Your task to perform on an android device: snooze an email in the gmail app Image 0: 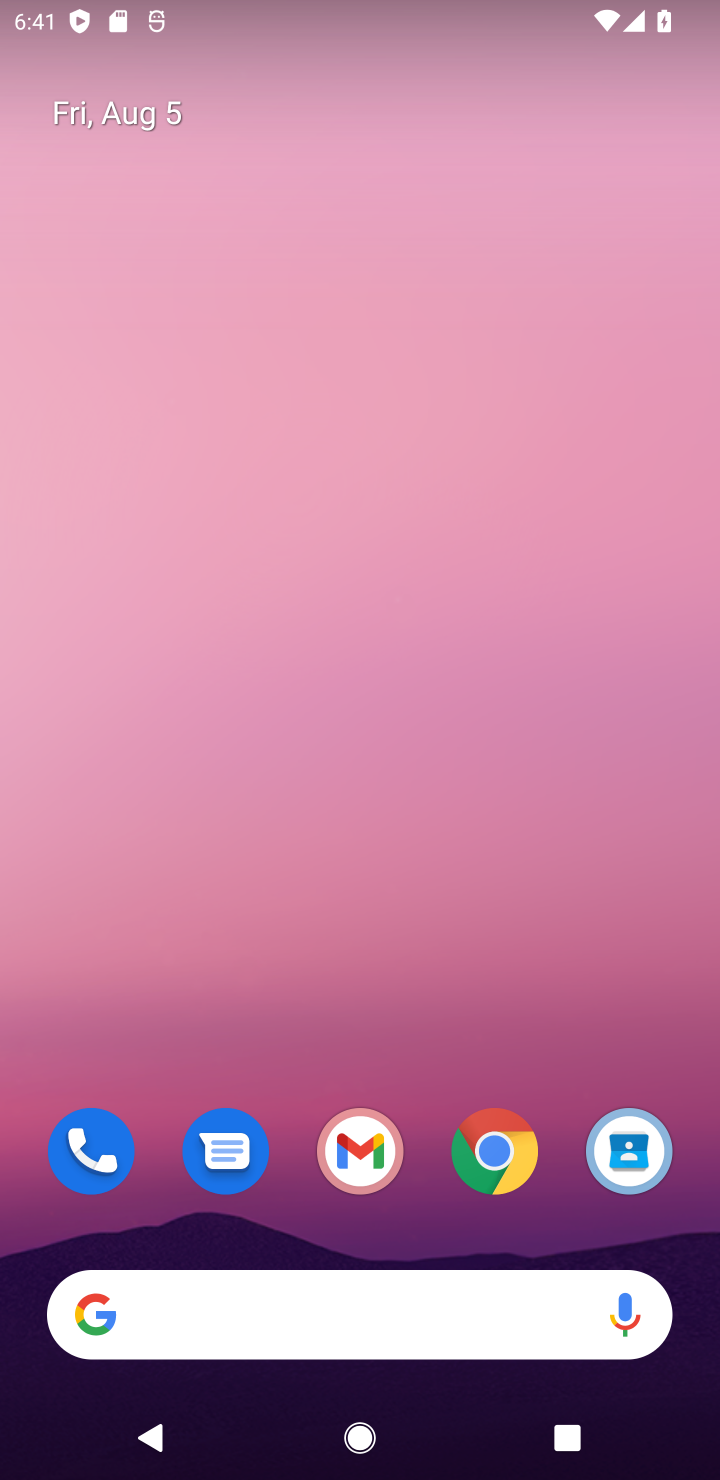
Step 0: click (372, 1137)
Your task to perform on an android device: snooze an email in the gmail app Image 1: 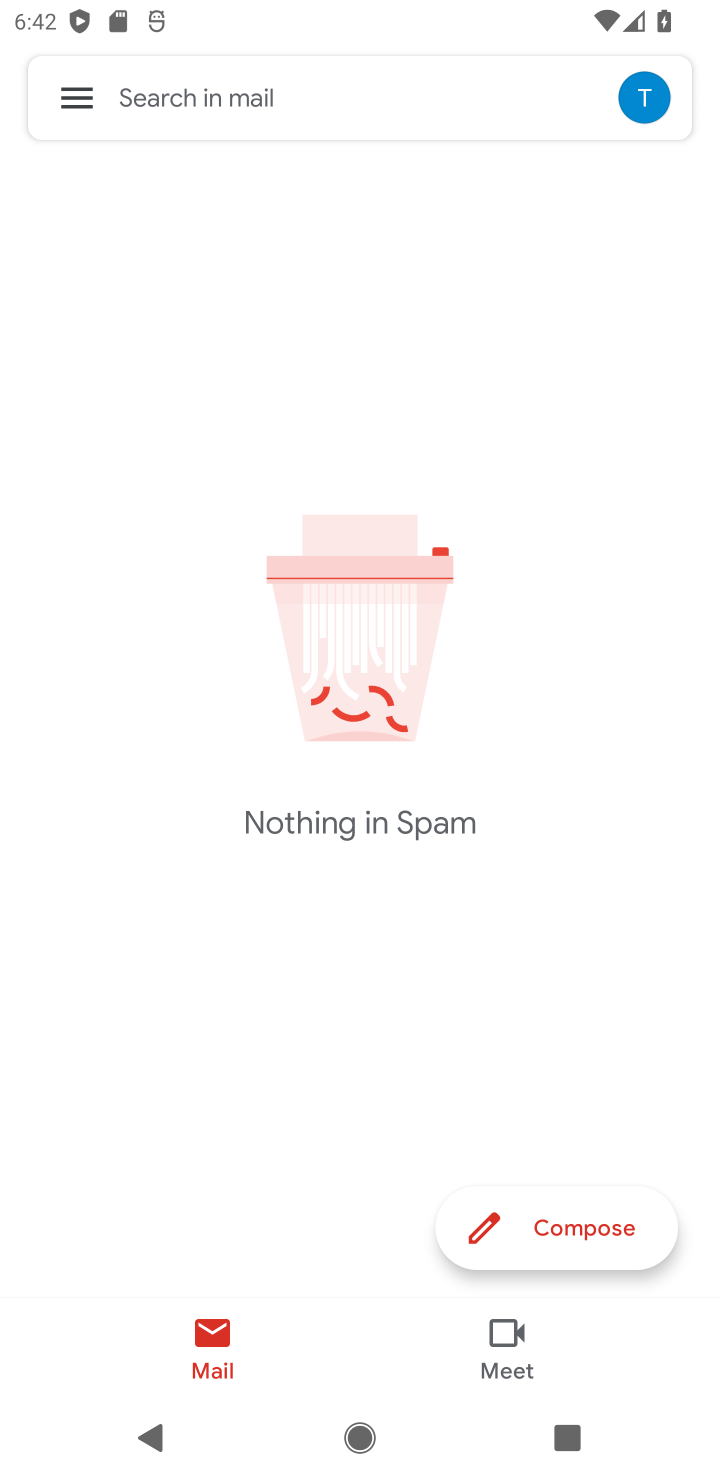
Step 1: click (85, 109)
Your task to perform on an android device: snooze an email in the gmail app Image 2: 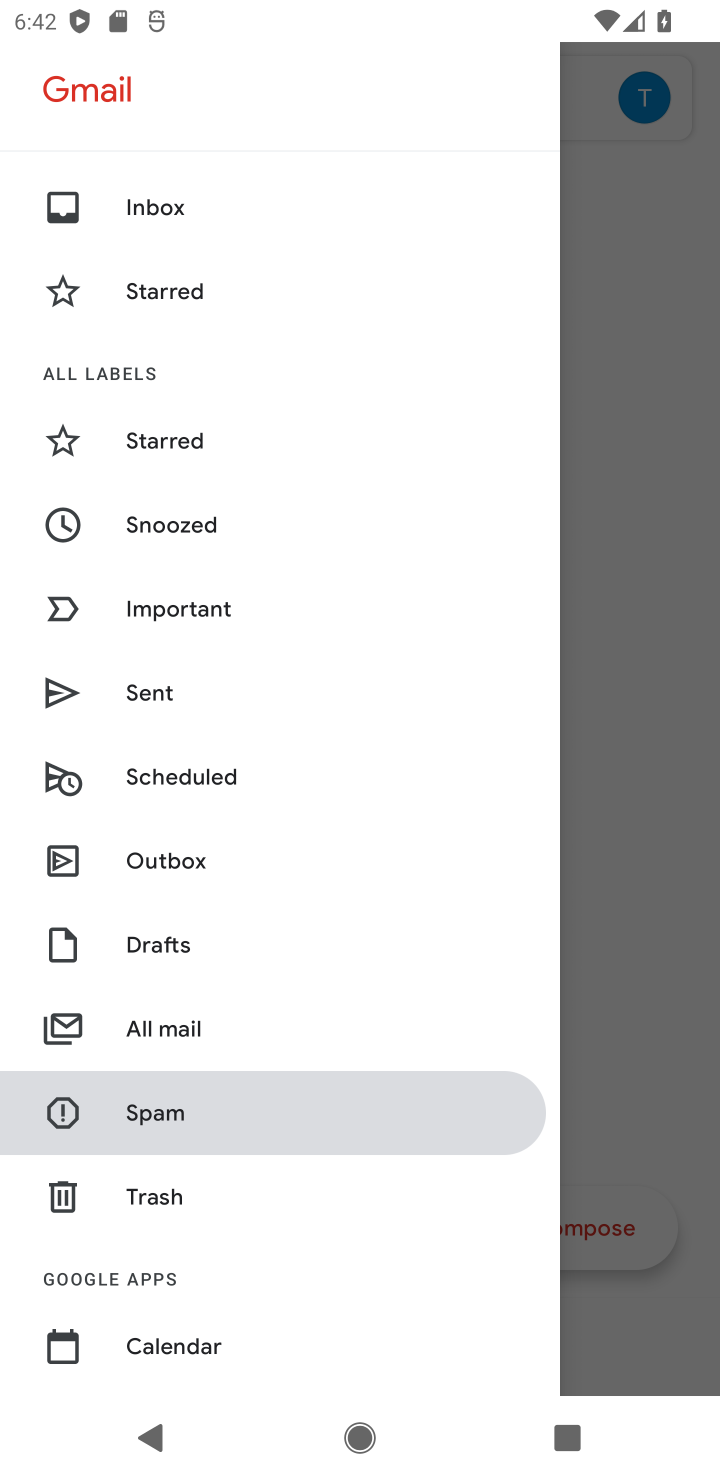
Step 2: drag from (443, 1255) to (323, 961)
Your task to perform on an android device: snooze an email in the gmail app Image 3: 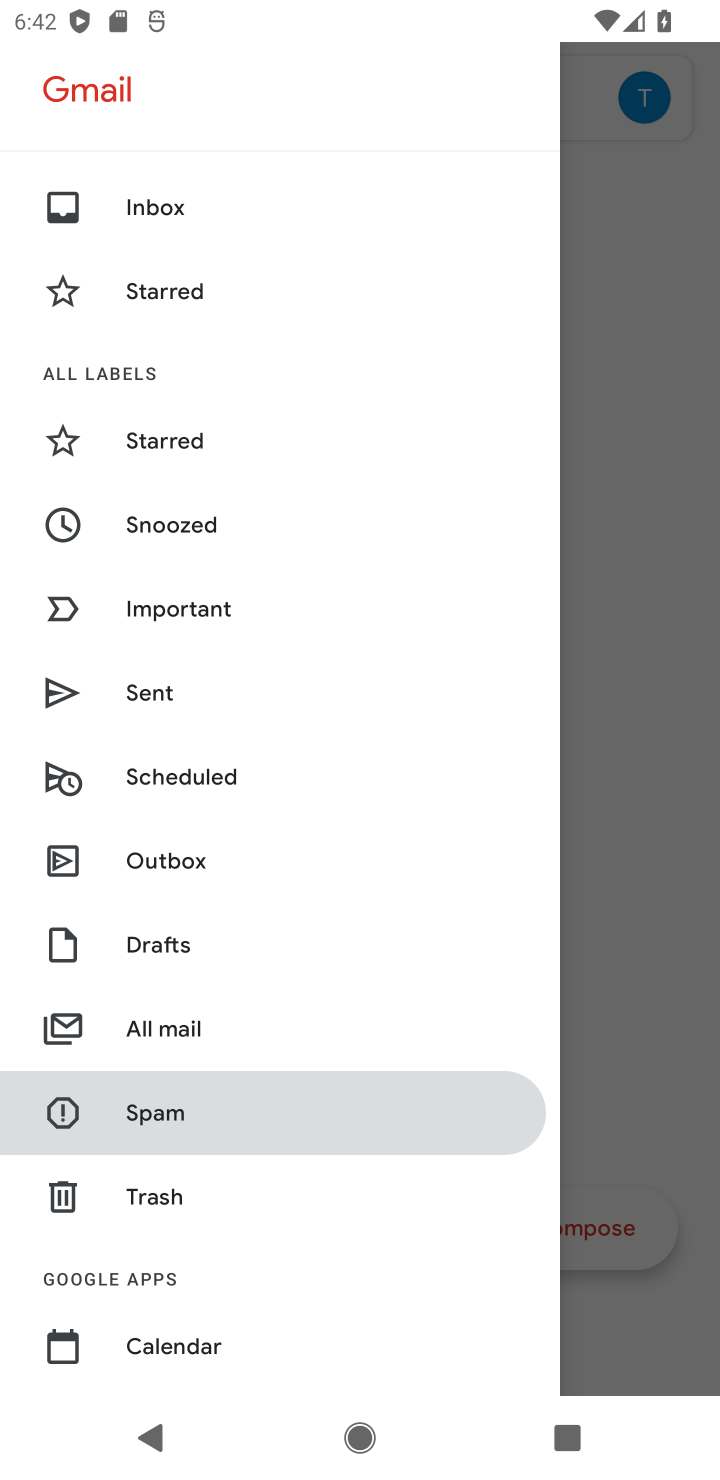
Step 3: click (149, 1026)
Your task to perform on an android device: snooze an email in the gmail app Image 4: 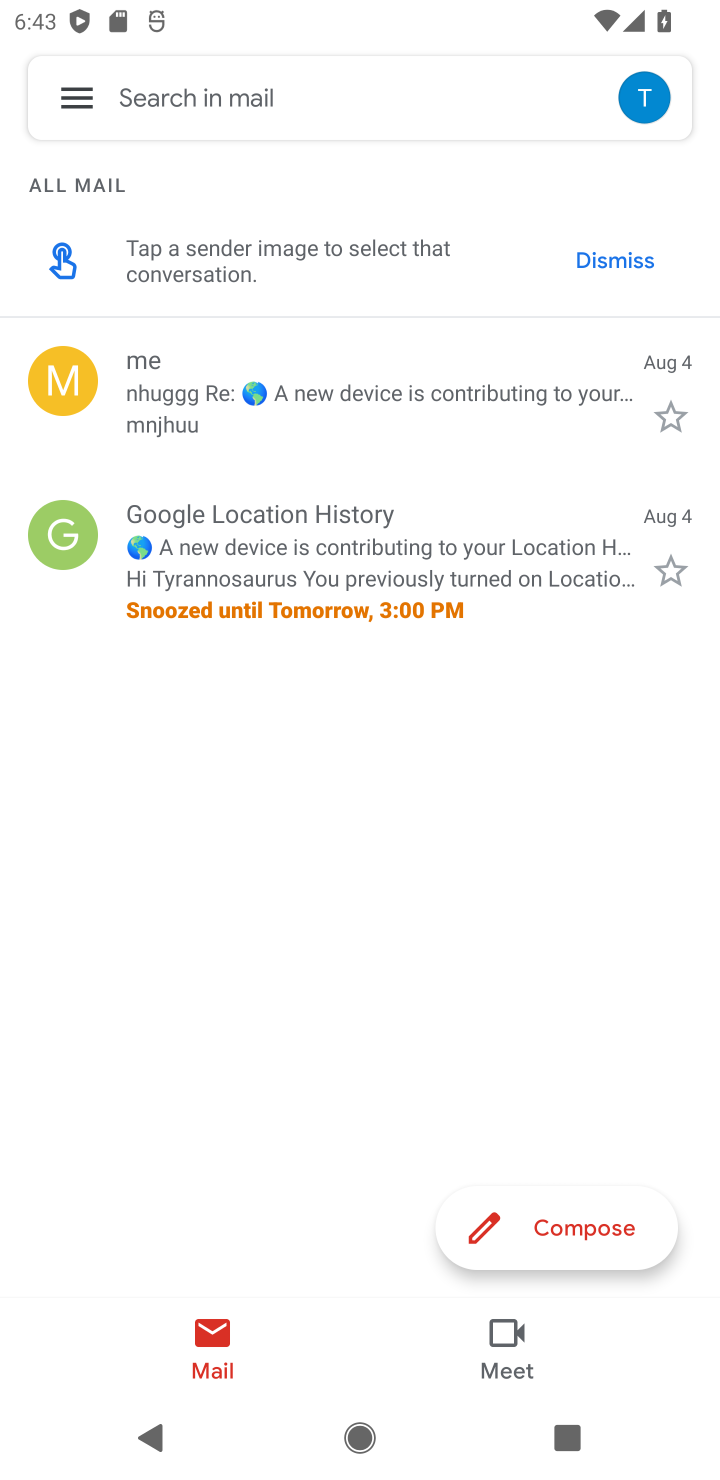
Step 4: drag from (42, 523) to (27, 358)
Your task to perform on an android device: snooze an email in the gmail app Image 5: 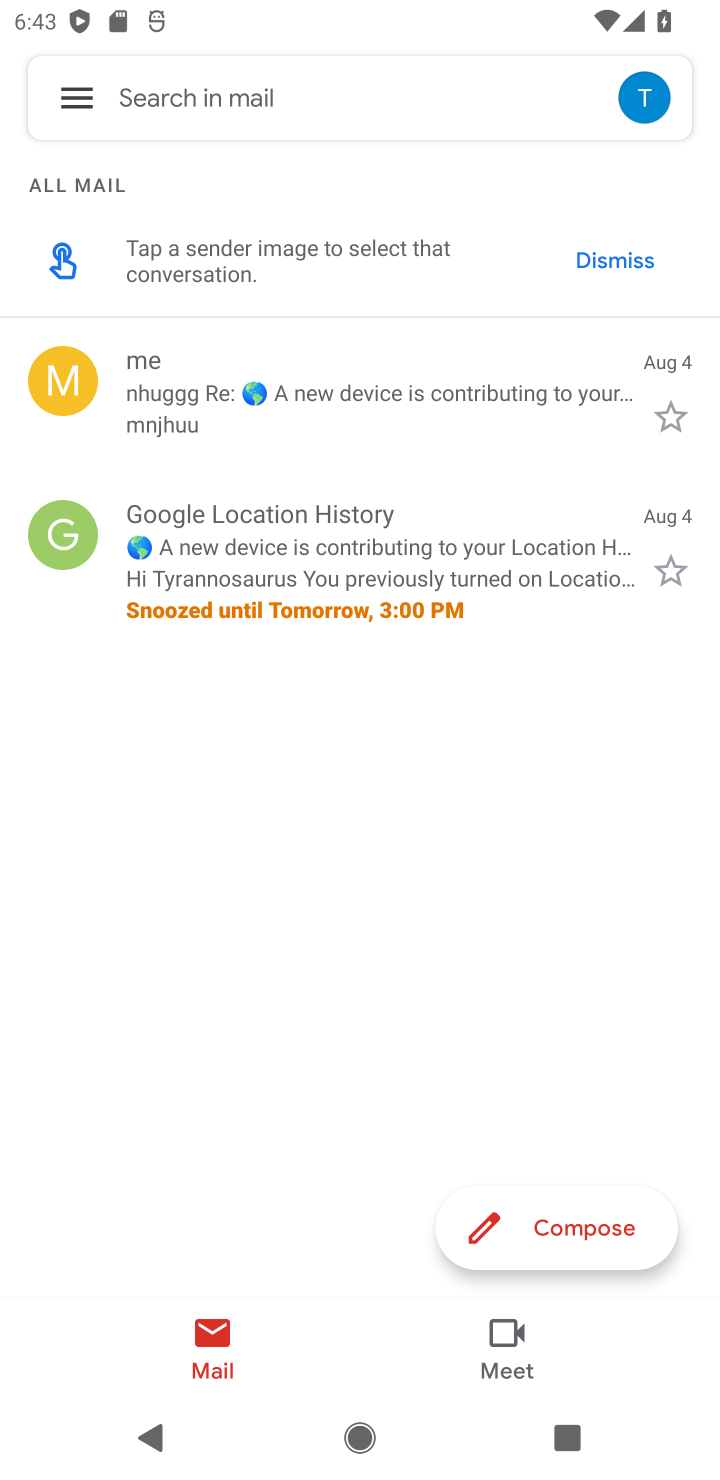
Step 5: click (59, 375)
Your task to perform on an android device: snooze an email in the gmail app Image 6: 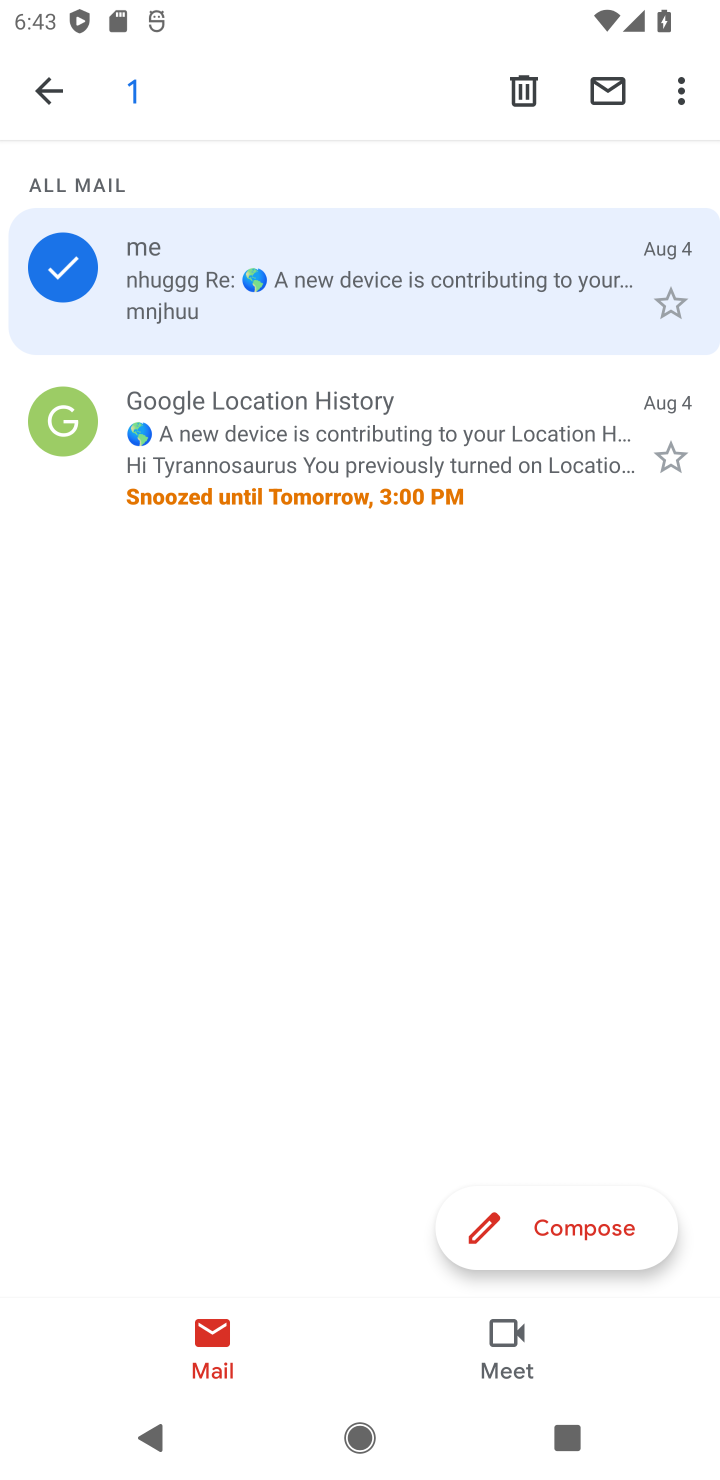
Step 6: click (676, 68)
Your task to perform on an android device: snooze an email in the gmail app Image 7: 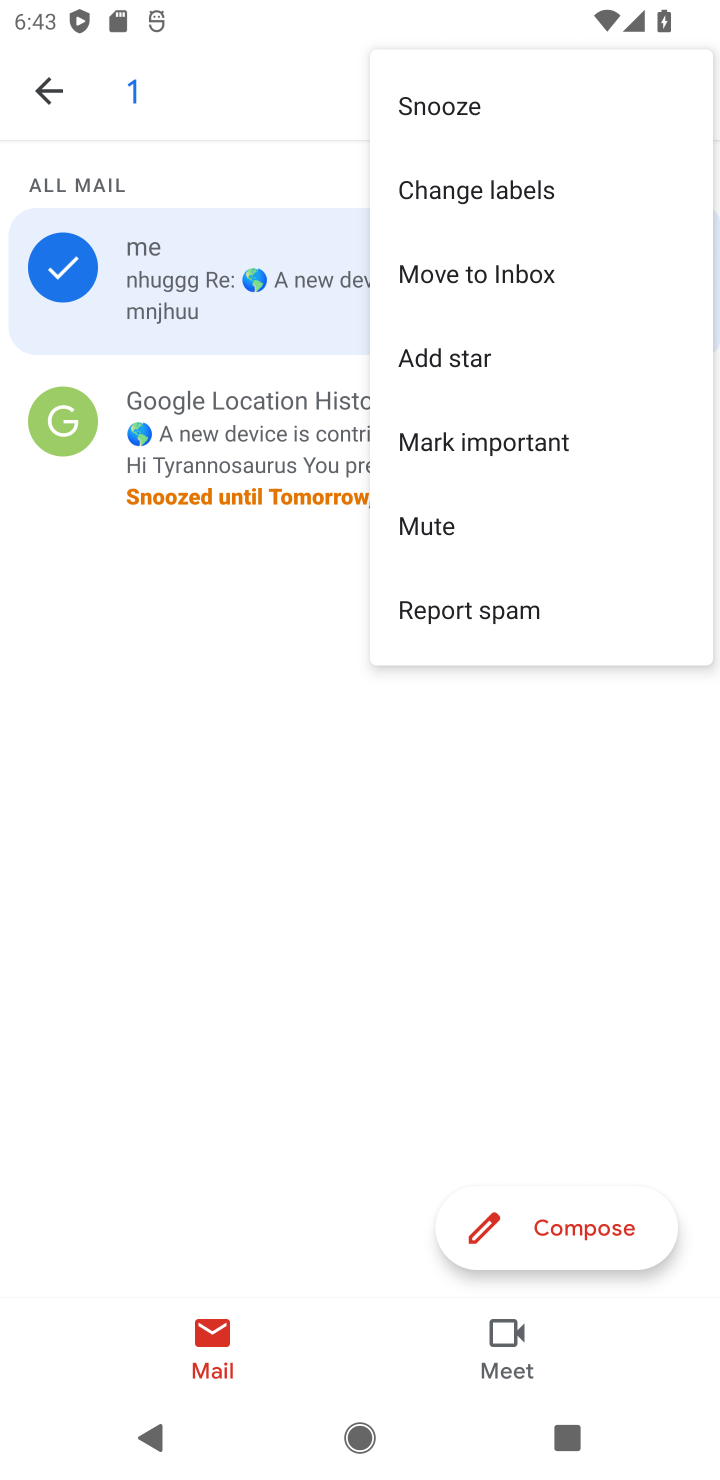
Step 7: click (437, 95)
Your task to perform on an android device: snooze an email in the gmail app Image 8: 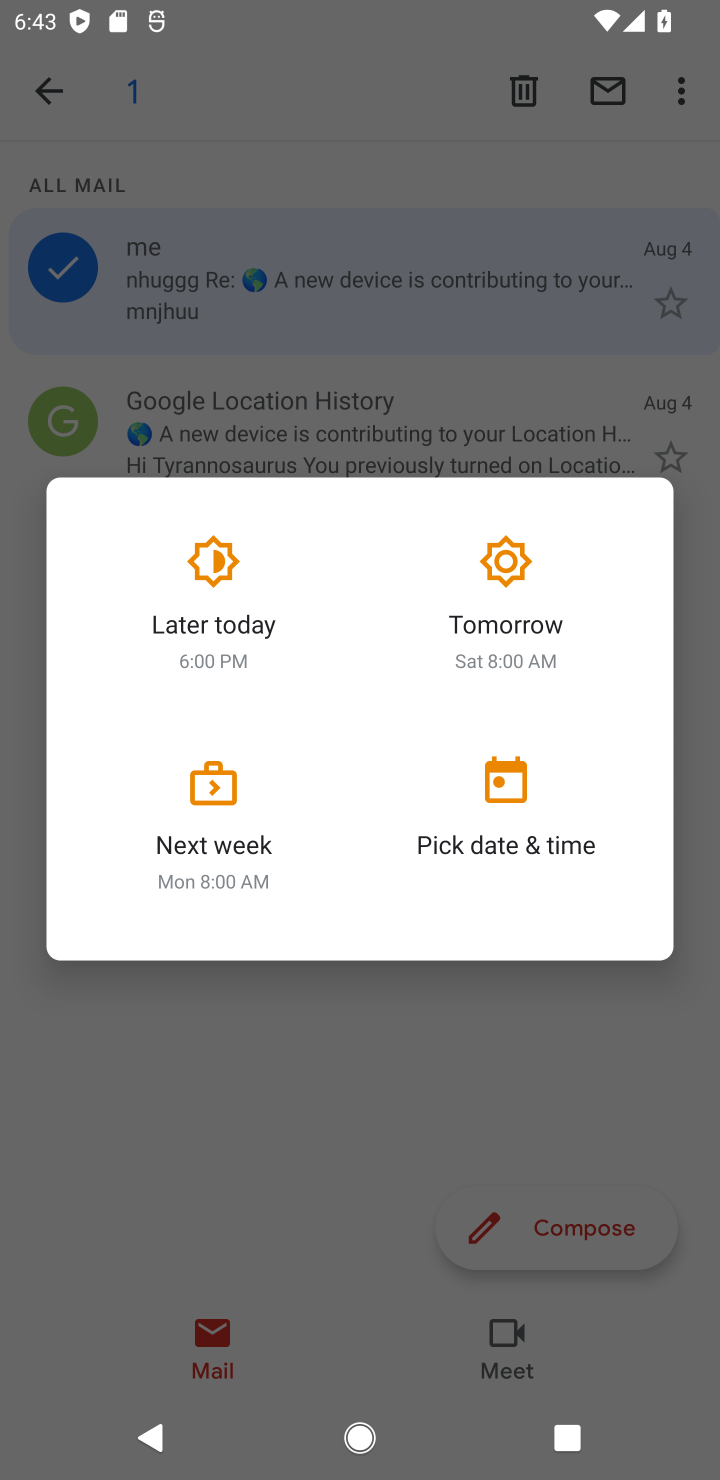
Step 8: click (516, 591)
Your task to perform on an android device: snooze an email in the gmail app Image 9: 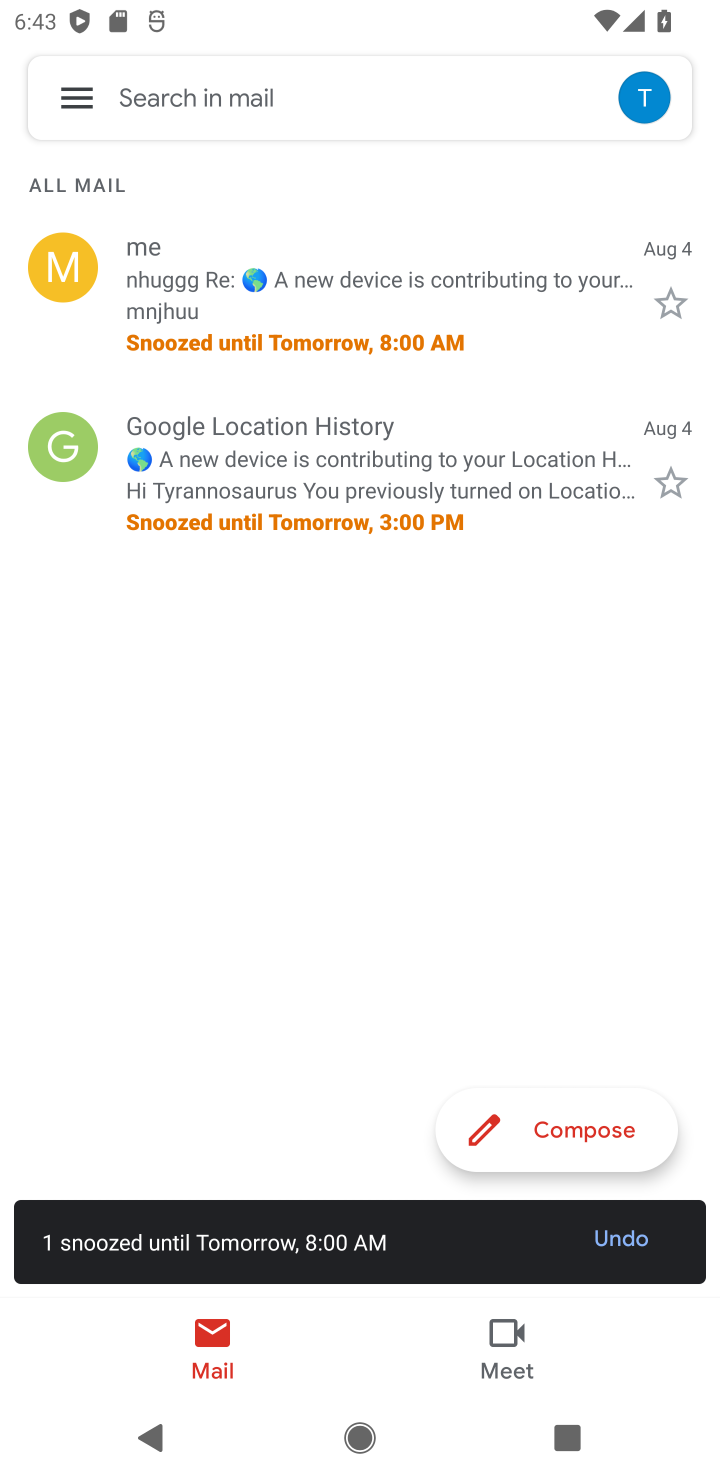
Step 9: task complete